Your task to perform on an android device: change the clock style Image 0: 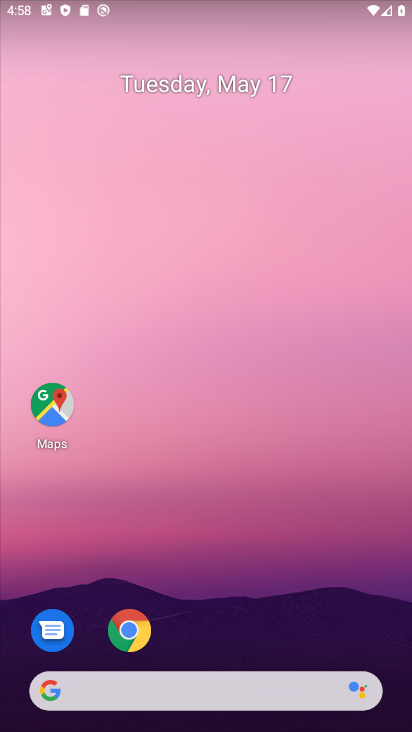
Step 0: drag from (327, 557) to (356, 173)
Your task to perform on an android device: change the clock style Image 1: 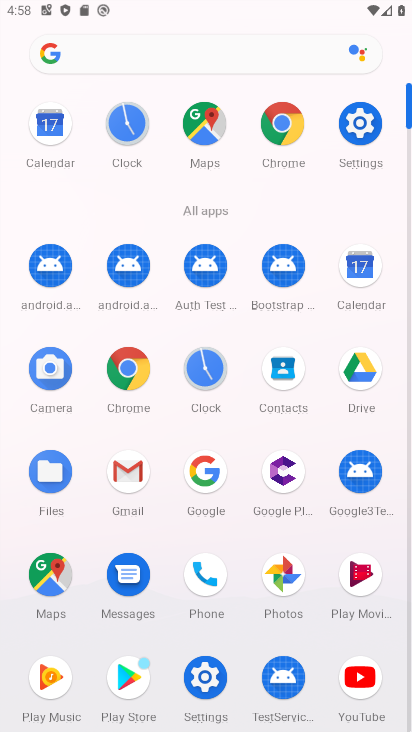
Step 1: click (200, 375)
Your task to perform on an android device: change the clock style Image 2: 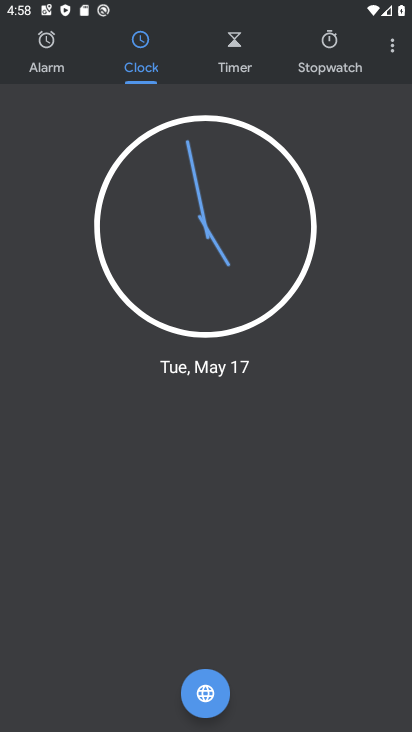
Step 2: drag from (390, 48) to (315, 107)
Your task to perform on an android device: change the clock style Image 3: 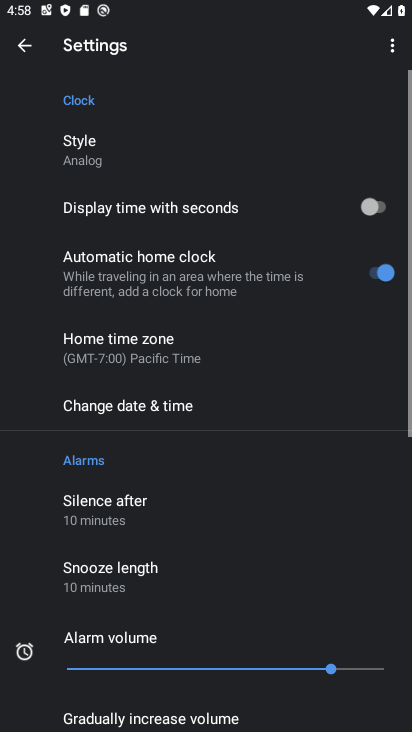
Step 3: click (104, 153)
Your task to perform on an android device: change the clock style Image 4: 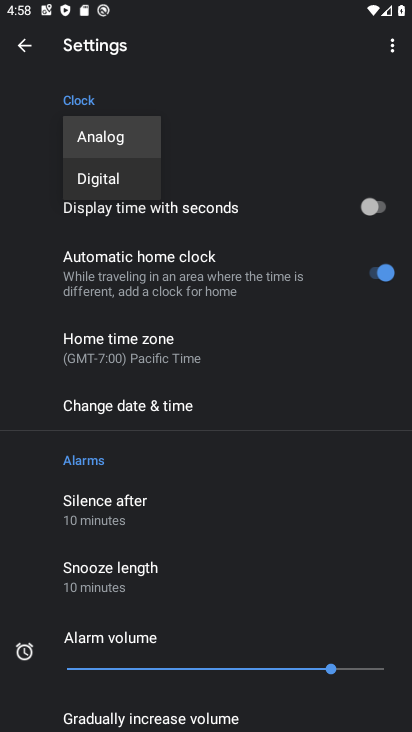
Step 4: click (121, 183)
Your task to perform on an android device: change the clock style Image 5: 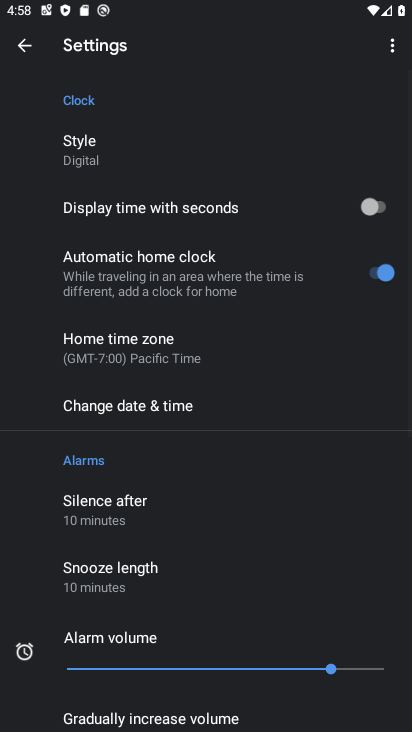
Step 5: task complete